Your task to perform on an android device: delete the emails in spam in the gmail app Image 0: 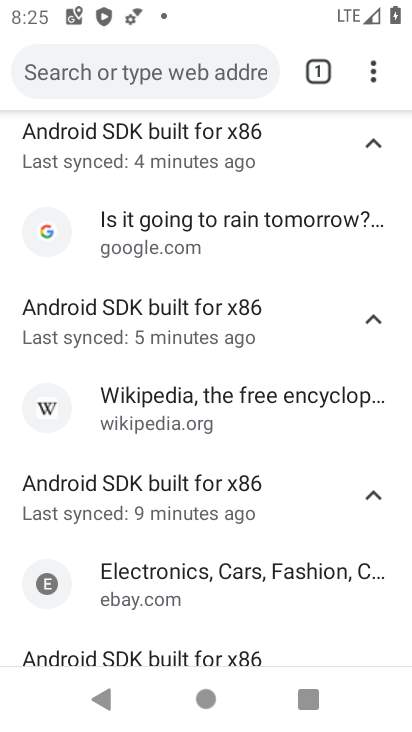
Step 0: press home button
Your task to perform on an android device: delete the emails in spam in the gmail app Image 1: 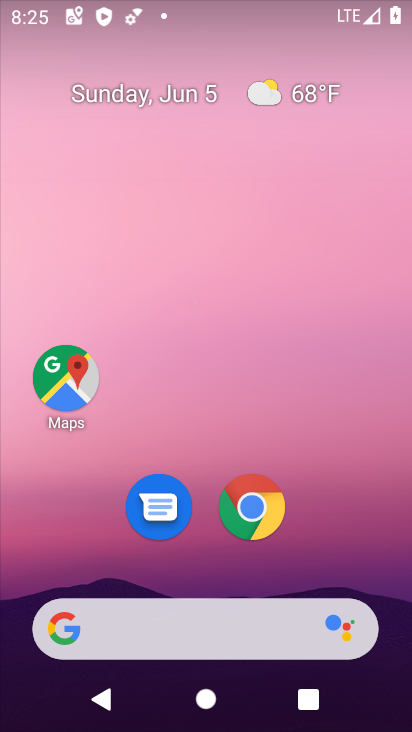
Step 1: drag from (197, 515) to (295, 17)
Your task to perform on an android device: delete the emails in spam in the gmail app Image 2: 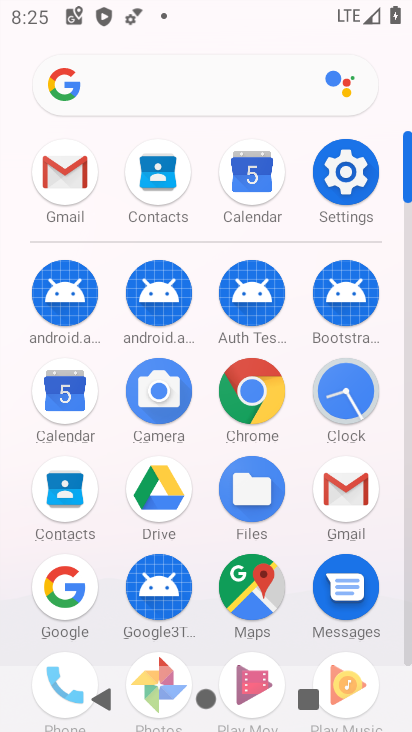
Step 2: click (355, 502)
Your task to perform on an android device: delete the emails in spam in the gmail app Image 3: 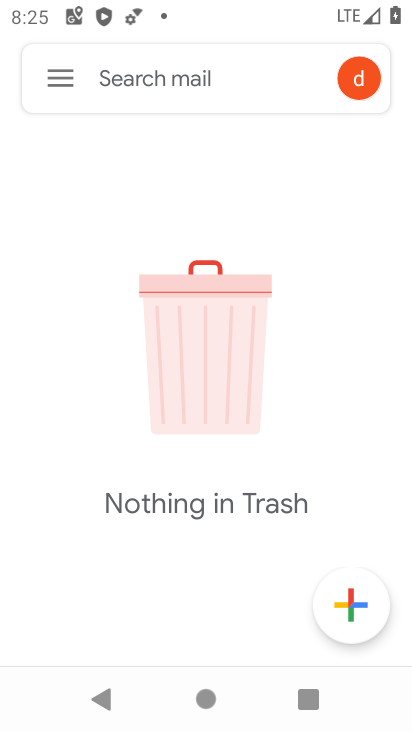
Step 3: click (70, 74)
Your task to perform on an android device: delete the emails in spam in the gmail app Image 4: 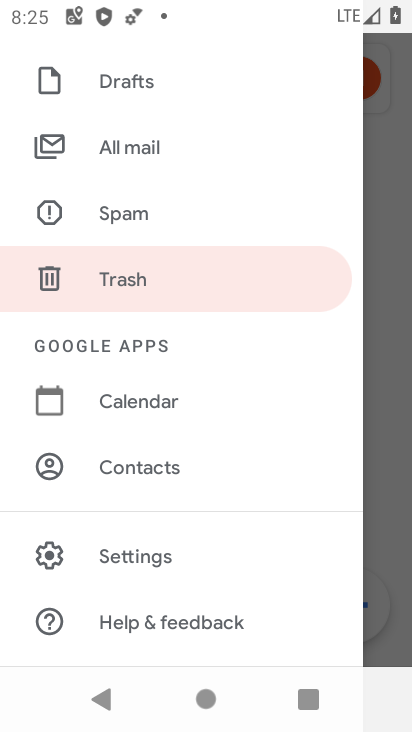
Step 4: click (137, 217)
Your task to perform on an android device: delete the emails in spam in the gmail app Image 5: 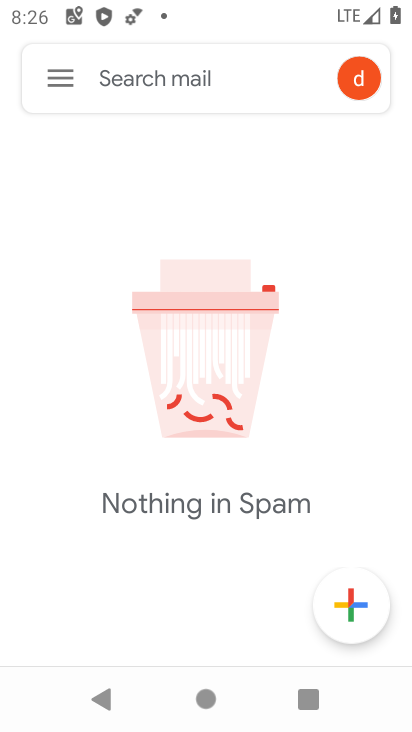
Step 5: task complete